Your task to perform on an android device: toggle translation in the chrome app Image 0: 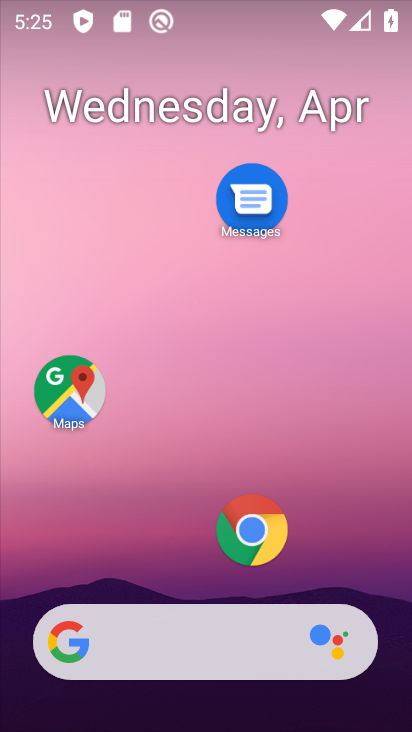
Step 0: click (252, 533)
Your task to perform on an android device: toggle translation in the chrome app Image 1: 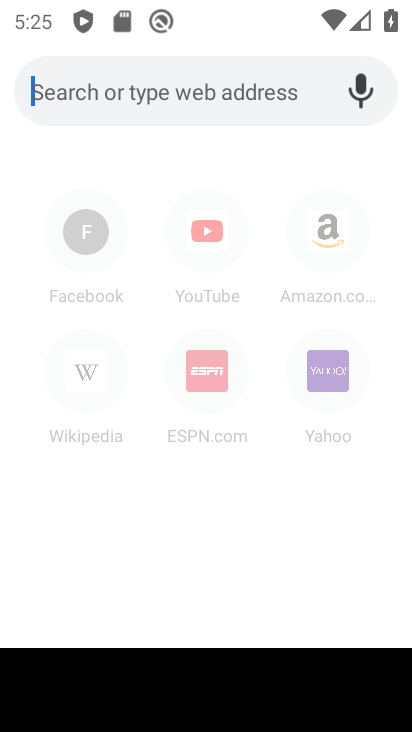
Step 1: press back button
Your task to perform on an android device: toggle translation in the chrome app Image 2: 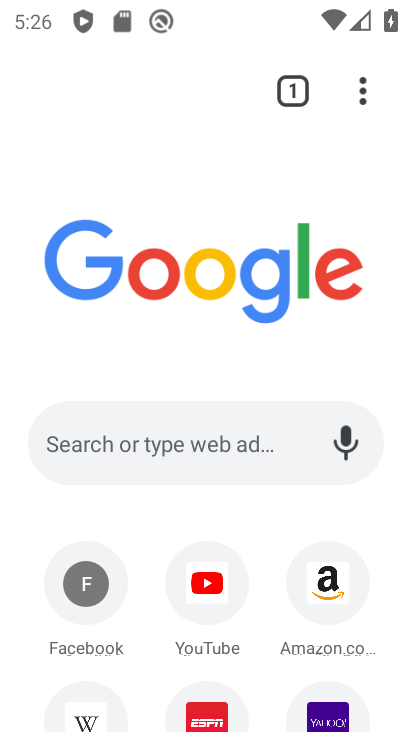
Step 2: click (362, 89)
Your task to perform on an android device: toggle translation in the chrome app Image 3: 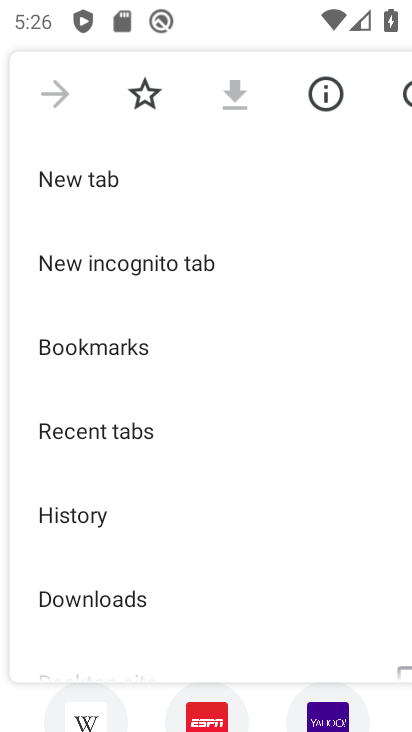
Step 3: drag from (132, 542) to (191, 376)
Your task to perform on an android device: toggle translation in the chrome app Image 4: 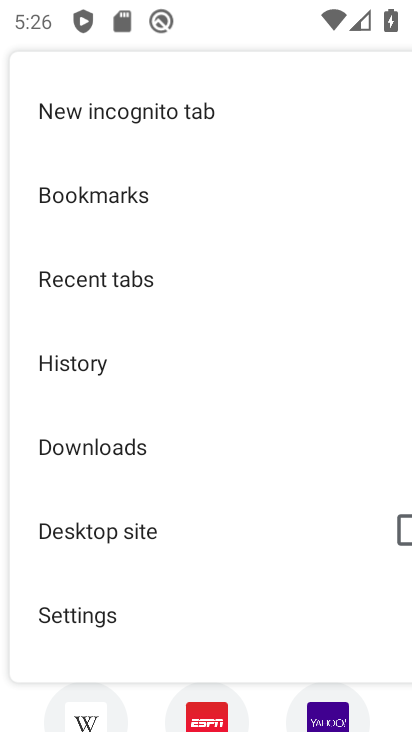
Step 4: drag from (177, 496) to (217, 369)
Your task to perform on an android device: toggle translation in the chrome app Image 5: 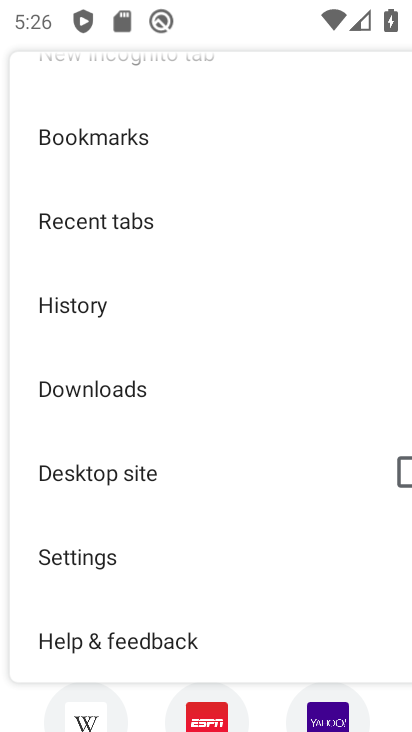
Step 5: click (83, 552)
Your task to perform on an android device: toggle translation in the chrome app Image 6: 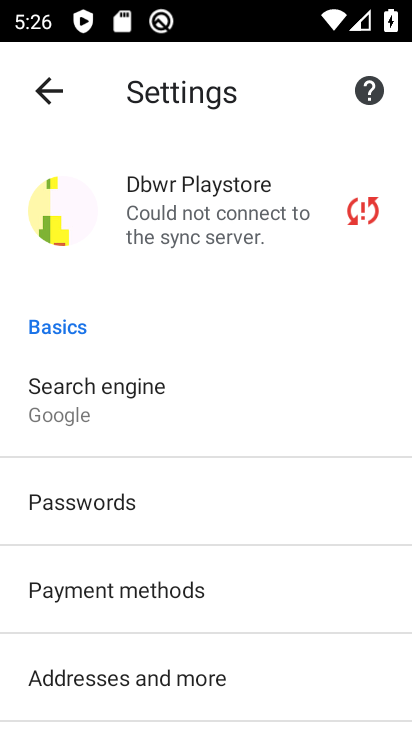
Step 6: drag from (142, 565) to (182, 432)
Your task to perform on an android device: toggle translation in the chrome app Image 7: 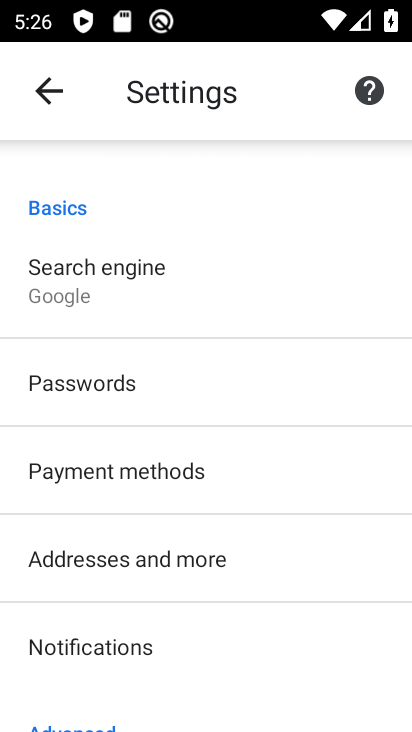
Step 7: drag from (173, 580) to (211, 468)
Your task to perform on an android device: toggle translation in the chrome app Image 8: 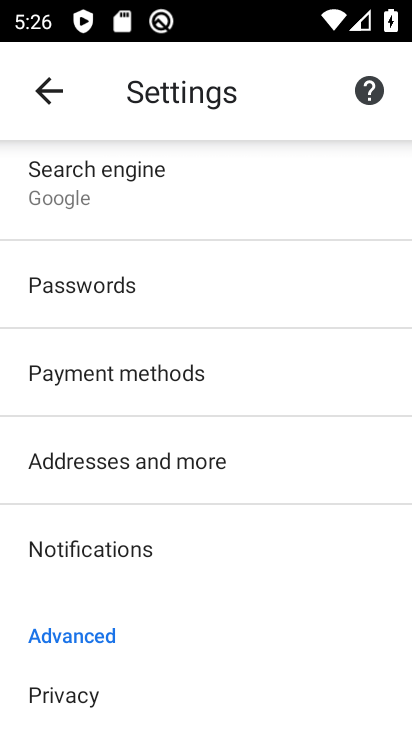
Step 8: drag from (195, 597) to (231, 476)
Your task to perform on an android device: toggle translation in the chrome app Image 9: 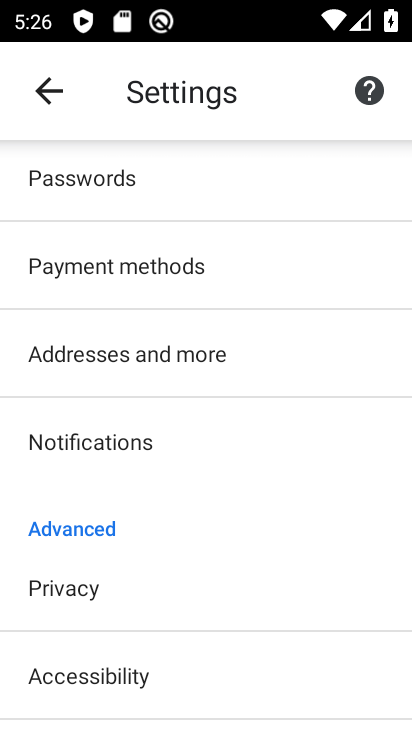
Step 9: drag from (189, 600) to (221, 503)
Your task to perform on an android device: toggle translation in the chrome app Image 10: 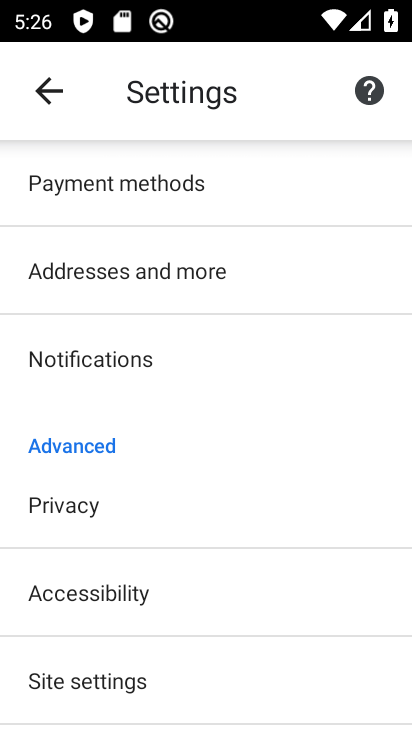
Step 10: drag from (182, 638) to (219, 524)
Your task to perform on an android device: toggle translation in the chrome app Image 11: 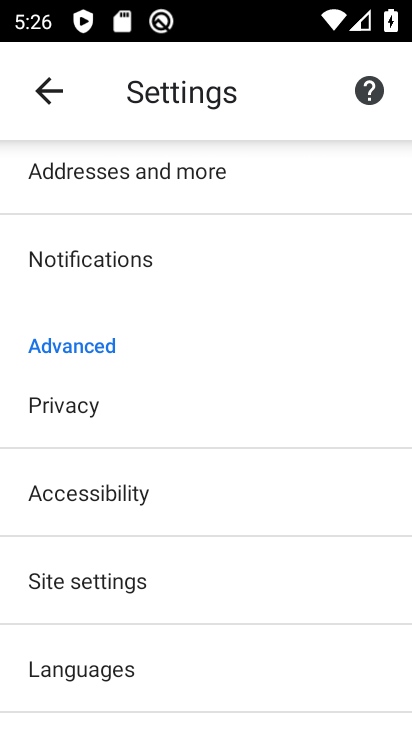
Step 11: click (114, 676)
Your task to perform on an android device: toggle translation in the chrome app Image 12: 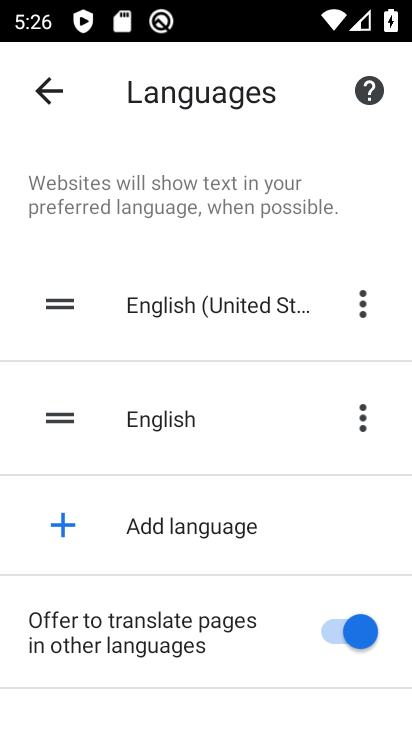
Step 12: click (356, 635)
Your task to perform on an android device: toggle translation in the chrome app Image 13: 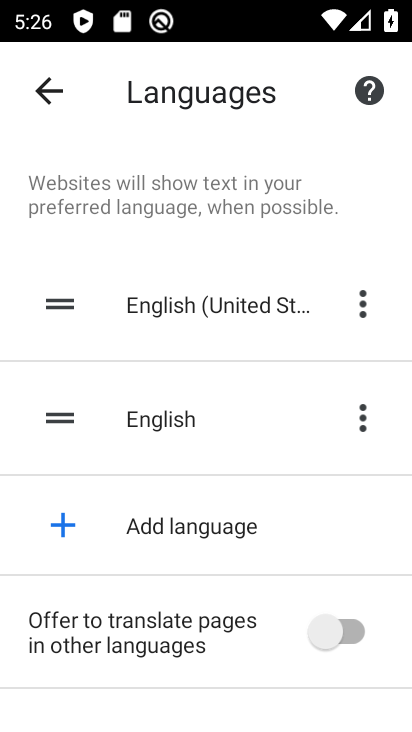
Step 13: task complete